Your task to perform on an android device: see tabs open on other devices in the chrome app Image 0: 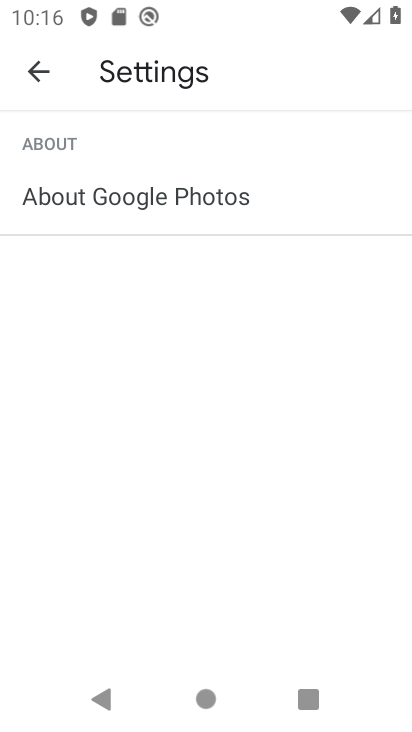
Step 0: press home button
Your task to perform on an android device: see tabs open on other devices in the chrome app Image 1: 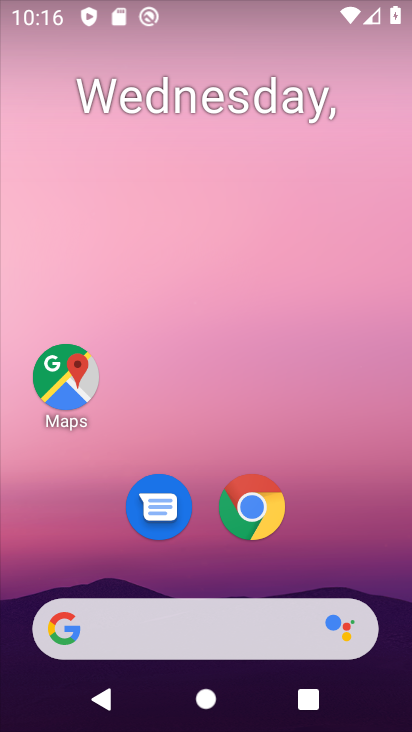
Step 1: drag from (258, 667) to (369, 166)
Your task to perform on an android device: see tabs open on other devices in the chrome app Image 2: 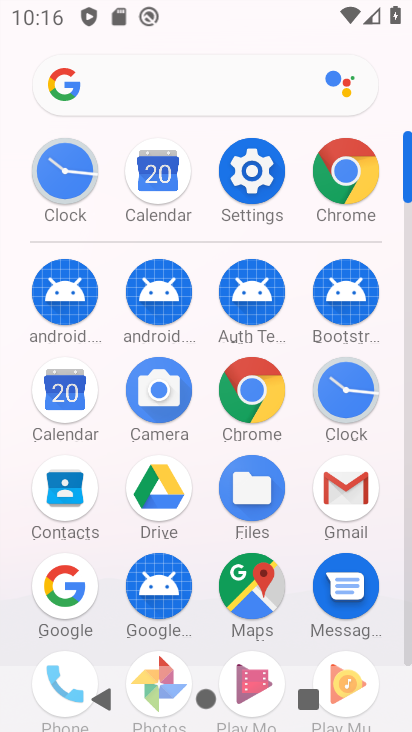
Step 2: click (340, 185)
Your task to perform on an android device: see tabs open on other devices in the chrome app Image 3: 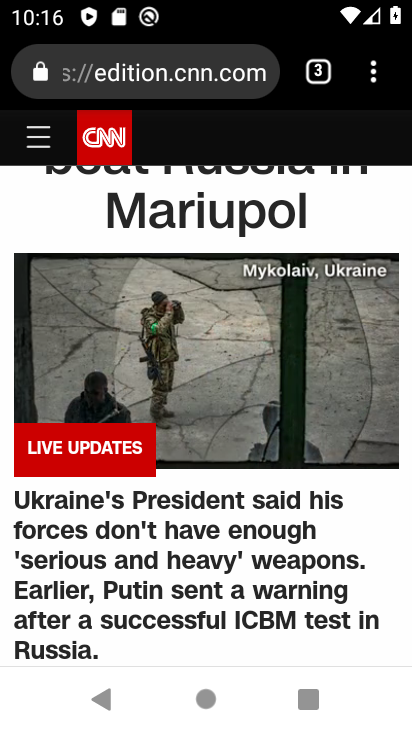
Step 3: click (373, 84)
Your task to perform on an android device: see tabs open on other devices in the chrome app Image 4: 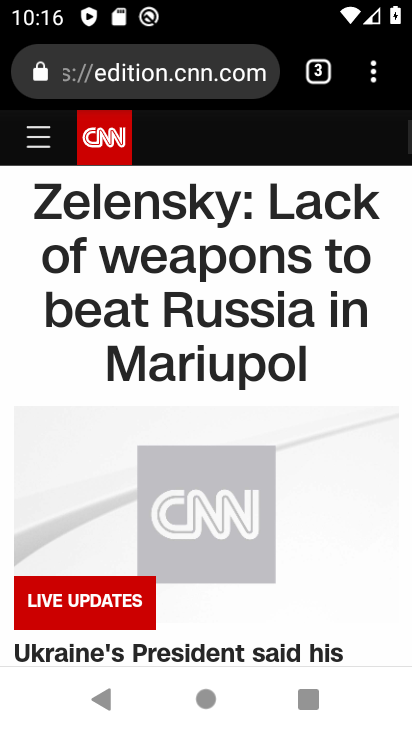
Step 4: click (373, 92)
Your task to perform on an android device: see tabs open on other devices in the chrome app Image 5: 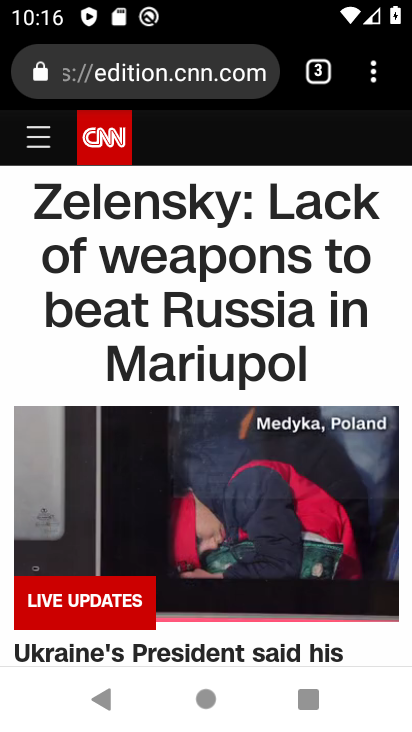
Step 5: click (368, 91)
Your task to perform on an android device: see tabs open on other devices in the chrome app Image 6: 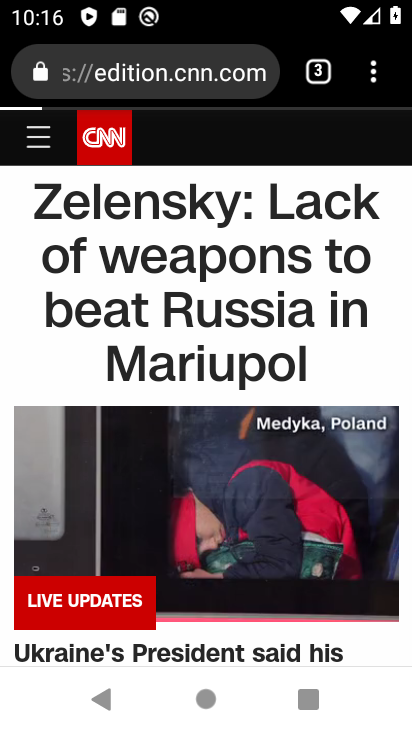
Step 6: click (371, 85)
Your task to perform on an android device: see tabs open on other devices in the chrome app Image 7: 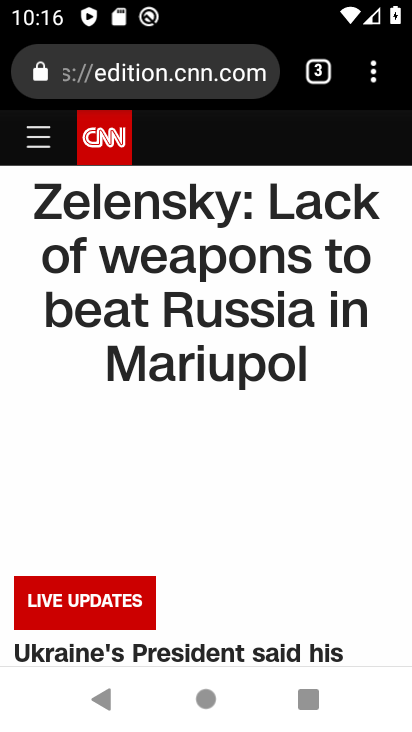
Step 7: click (368, 84)
Your task to perform on an android device: see tabs open on other devices in the chrome app Image 8: 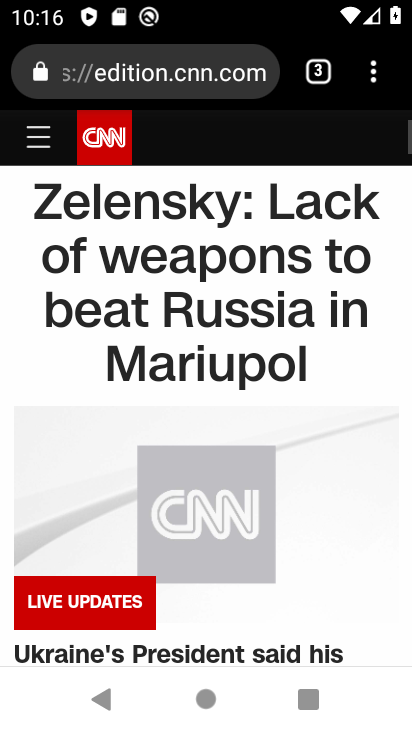
Step 8: click (372, 81)
Your task to perform on an android device: see tabs open on other devices in the chrome app Image 9: 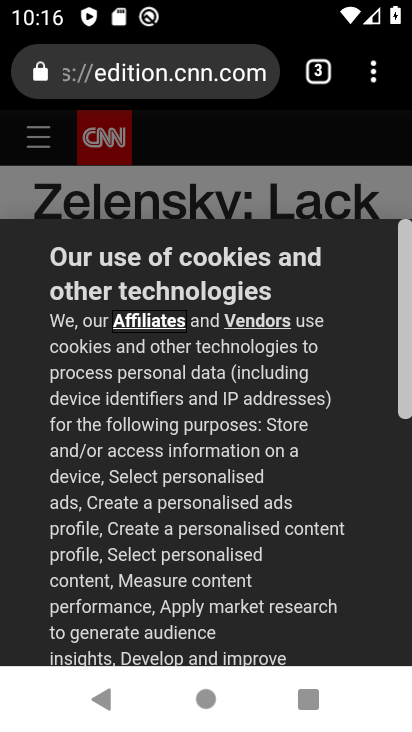
Step 9: click (370, 78)
Your task to perform on an android device: see tabs open on other devices in the chrome app Image 10: 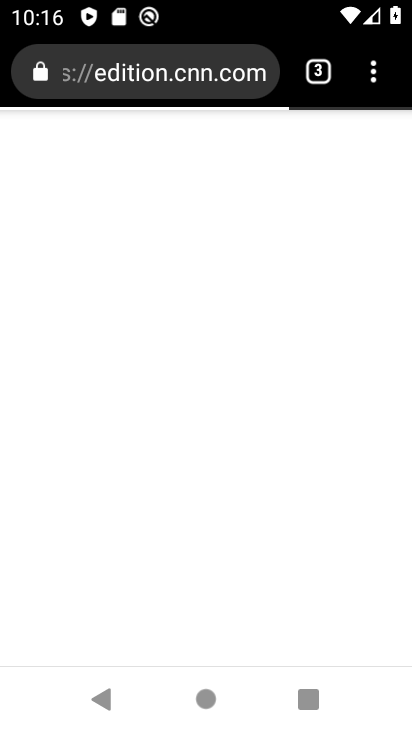
Step 10: click (370, 78)
Your task to perform on an android device: see tabs open on other devices in the chrome app Image 11: 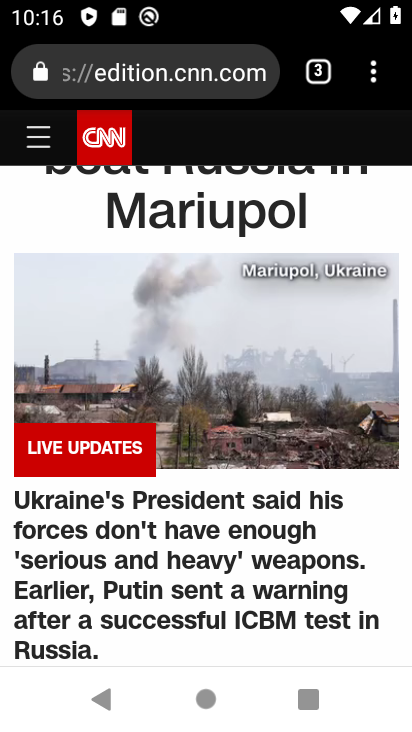
Step 11: click (372, 72)
Your task to perform on an android device: see tabs open on other devices in the chrome app Image 12: 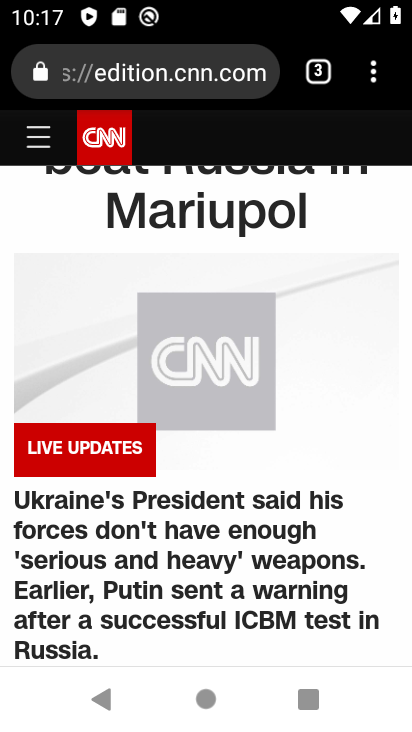
Step 12: click (368, 95)
Your task to perform on an android device: see tabs open on other devices in the chrome app Image 13: 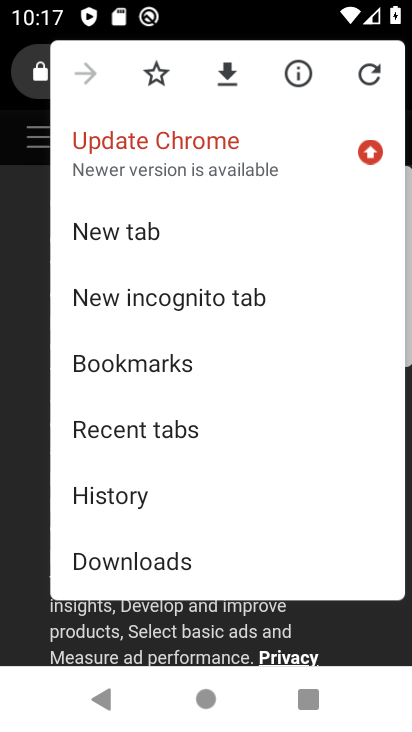
Step 13: drag from (218, 491) to (230, 447)
Your task to perform on an android device: see tabs open on other devices in the chrome app Image 14: 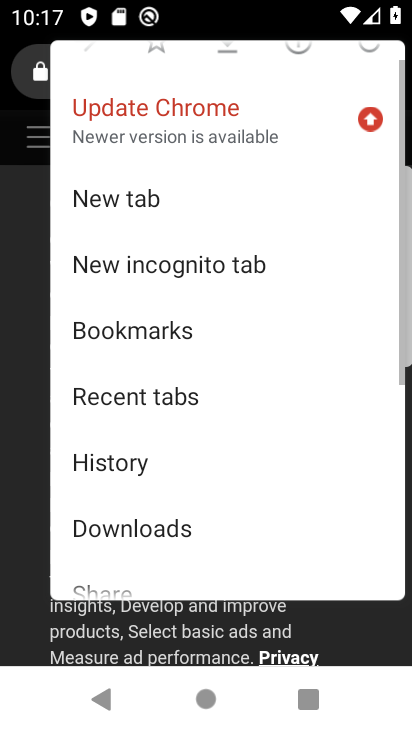
Step 14: click (156, 209)
Your task to perform on an android device: see tabs open on other devices in the chrome app Image 15: 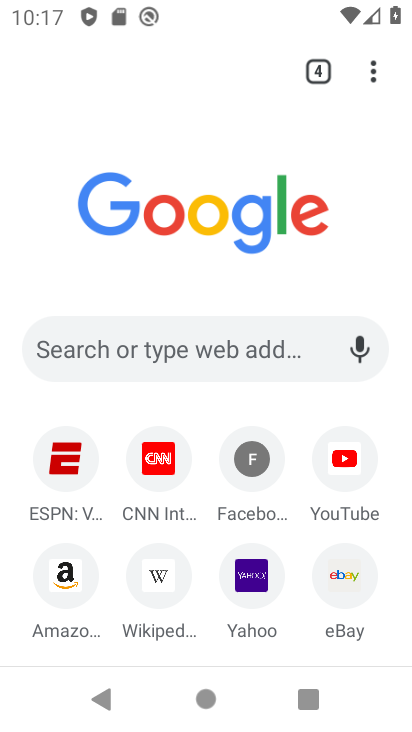
Step 15: task complete